Your task to perform on an android device: visit the assistant section in the google photos Image 0: 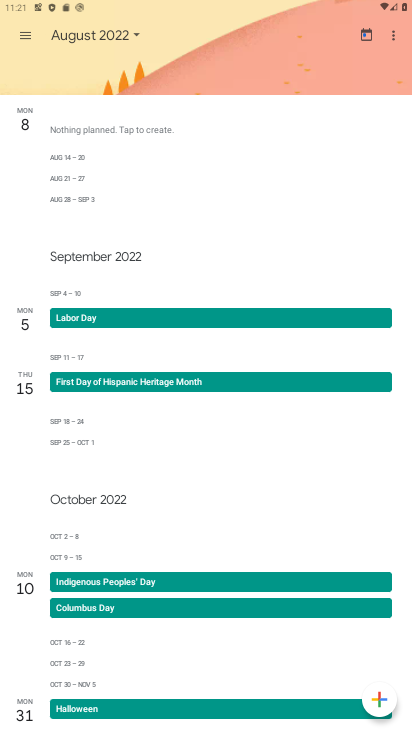
Step 0: press home button
Your task to perform on an android device: visit the assistant section in the google photos Image 1: 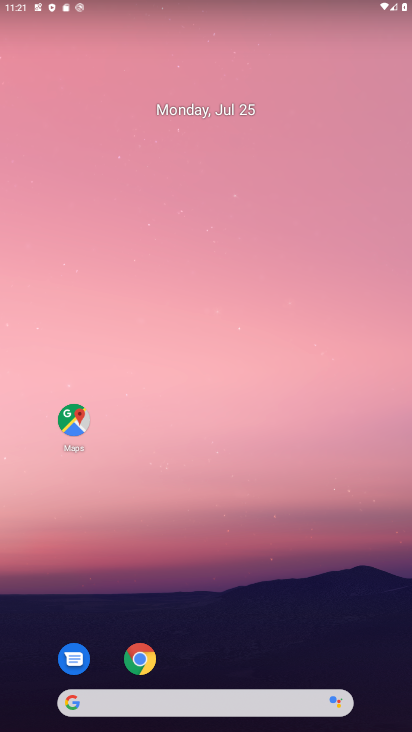
Step 1: drag from (23, 698) to (333, 115)
Your task to perform on an android device: visit the assistant section in the google photos Image 2: 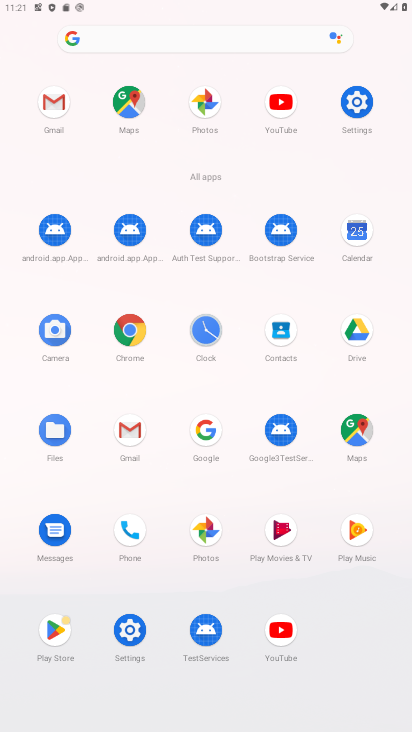
Step 2: click (216, 548)
Your task to perform on an android device: visit the assistant section in the google photos Image 3: 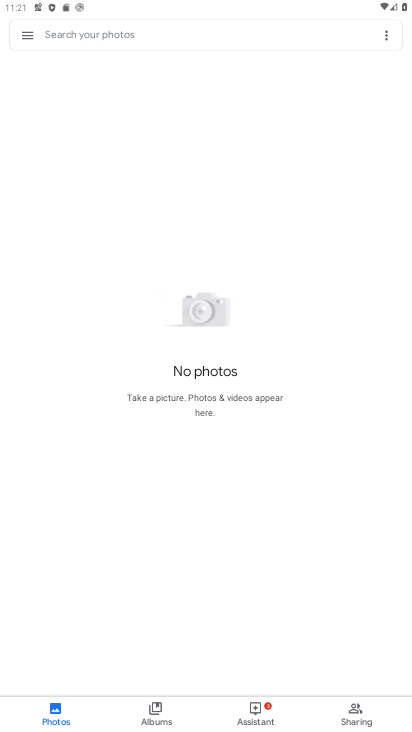
Step 3: click (255, 708)
Your task to perform on an android device: visit the assistant section in the google photos Image 4: 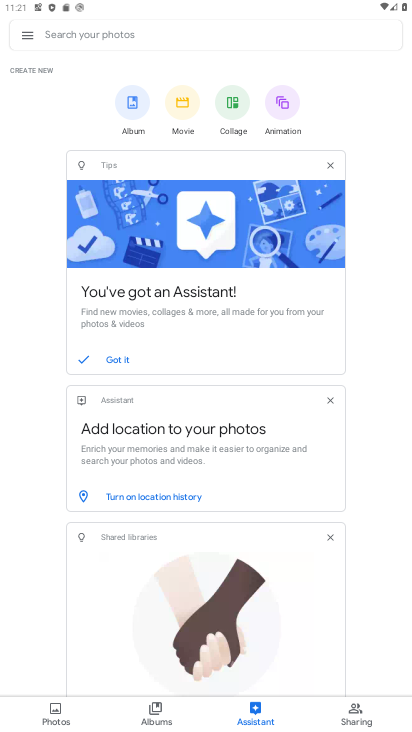
Step 4: task complete